Your task to perform on an android device: change the clock display to digital Image 0: 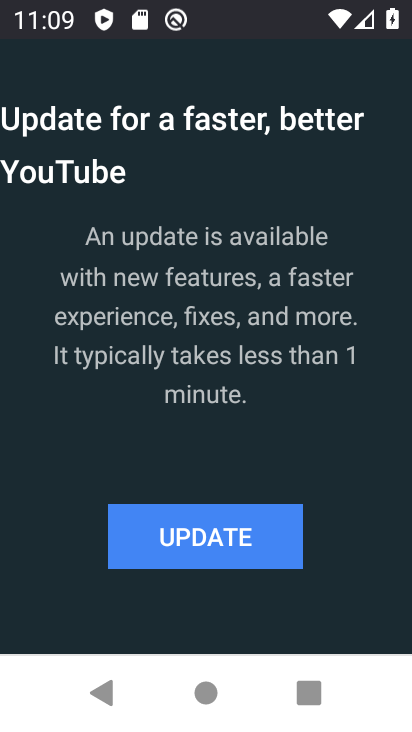
Step 0: press back button
Your task to perform on an android device: change the clock display to digital Image 1: 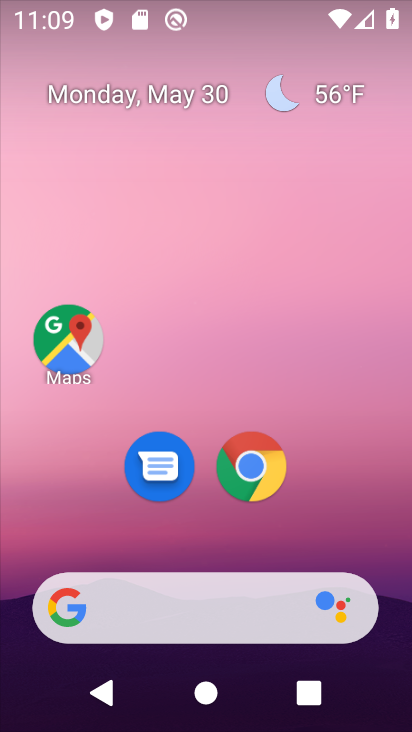
Step 1: drag from (348, 497) to (375, 103)
Your task to perform on an android device: change the clock display to digital Image 2: 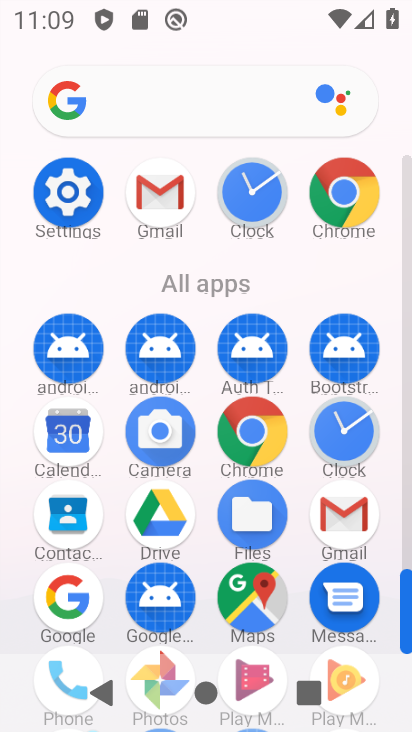
Step 2: click (264, 206)
Your task to perform on an android device: change the clock display to digital Image 3: 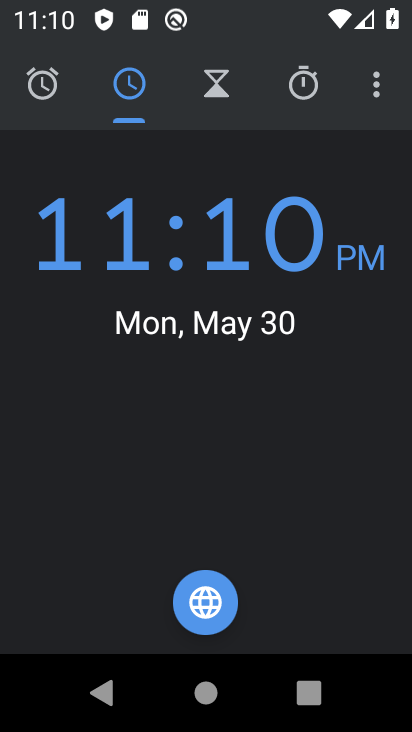
Step 3: click (379, 80)
Your task to perform on an android device: change the clock display to digital Image 4: 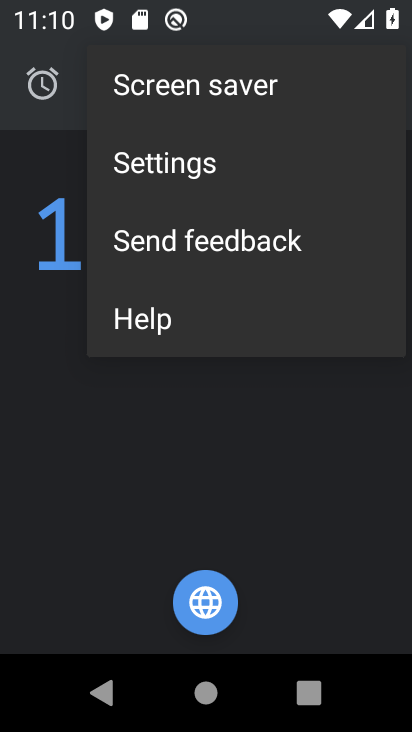
Step 4: click (212, 179)
Your task to perform on an android device: change the clock display to digital Image 5: 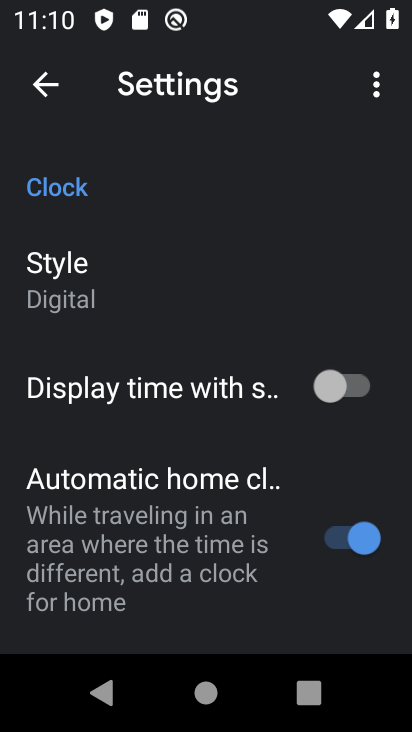
Step 5: task complete